Your task to perform on an android device: turn off picture-in-picture Image 0: 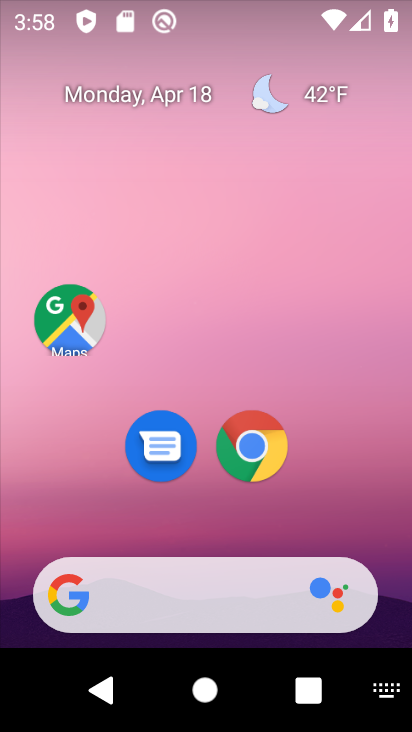
Step 0: click (256, 437)
Your task to perform on an android device: turn off picture-in-picture Image 1: 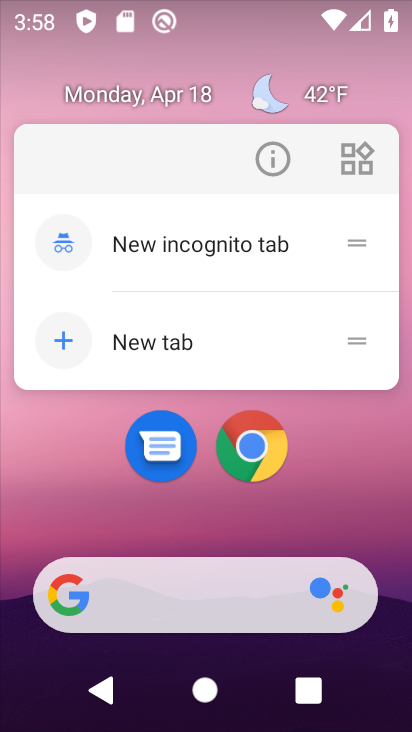
Step 1: click (268, 154)
Your task to perform on an android device: turn off picture-in-picture Image 2: 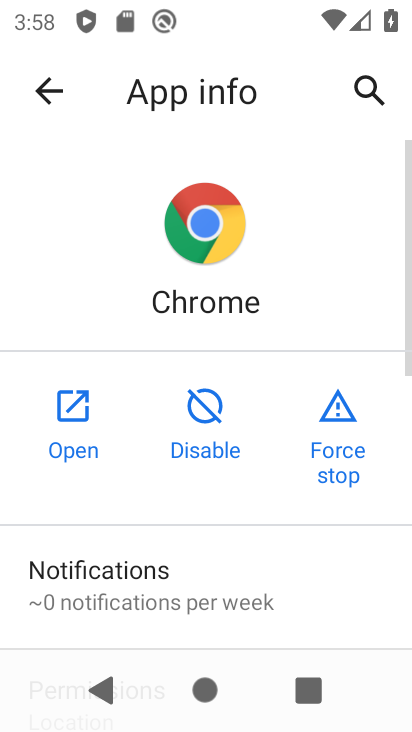
Step 2: drag from (232, 601) to (261, 92)
Your task to perform on an android device: turn off picture-in-picture Image 3: 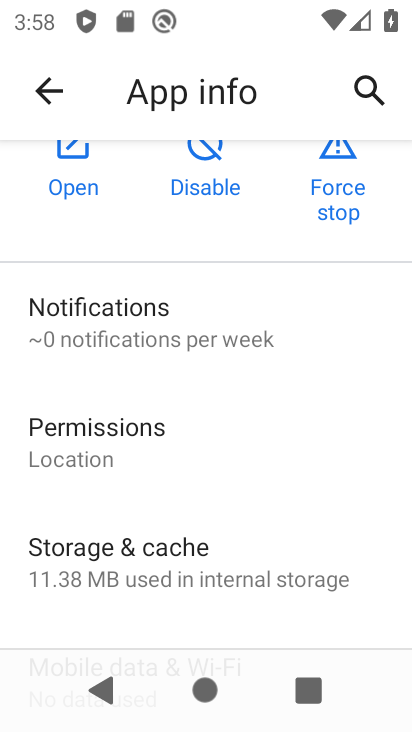
Step 3: drag from (267, 478) to (308, 87)
Your task to perform on an android device: turn off picture-in-picture Image 4: 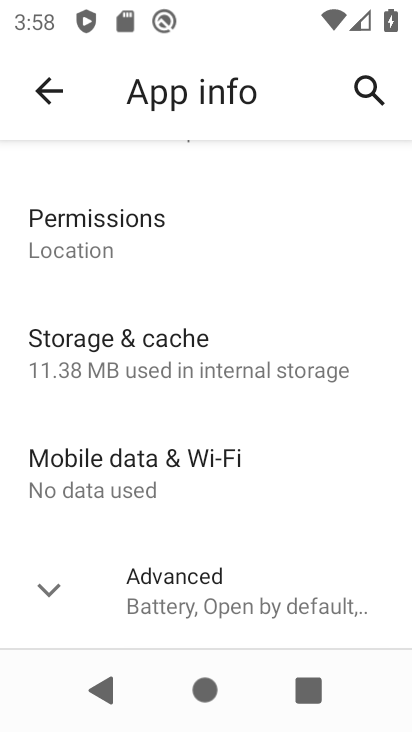
Step 4: click (187, 585)
Your task to perform on an android device: turn off picture-in-picture Image 5: 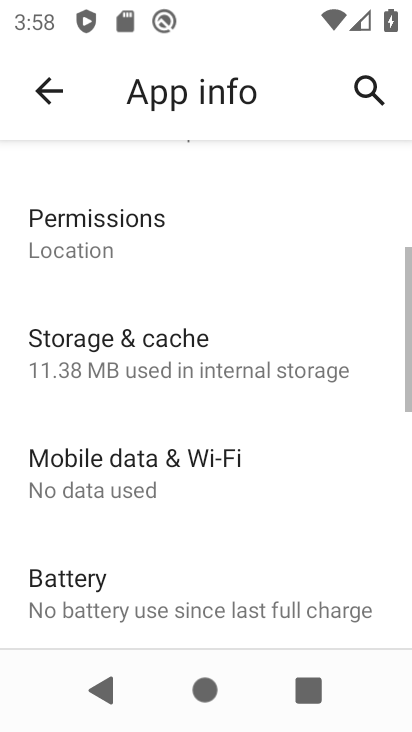
Step 5: drag from (217, 555) to (268, 132)
Your task to perform on an android device: turn off picture-in-picture Image 6: 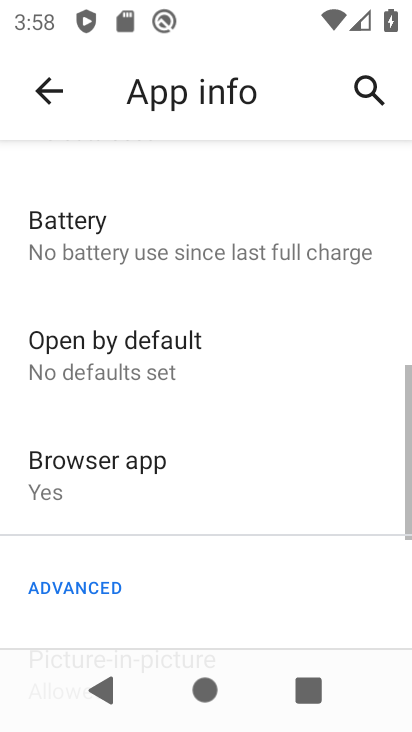
Step 6: drag from (191, 527) to (272, 214)
Your task to perform on an android device: turn off picture-in-picture Image 7: 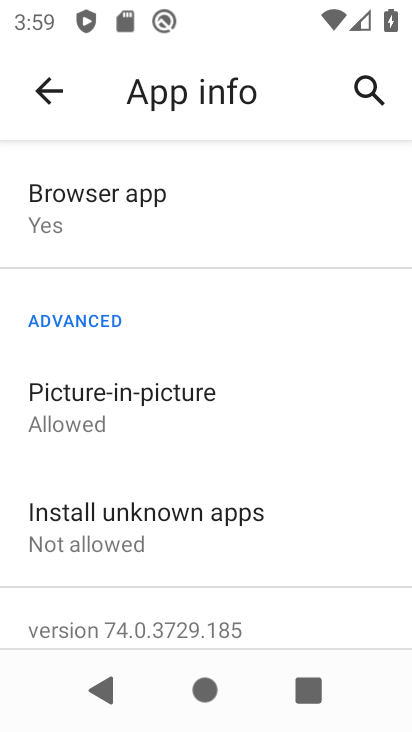
Step 7: click (133, 426)
Your task to perform on an android device: turn off picture-in-picture Image 8: 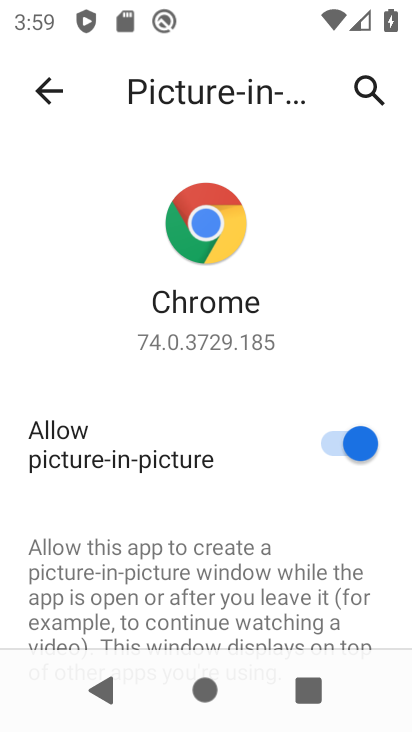
Step 8: drag from (300, 585) to (238, 198)
Your task to perform on an android device: turn off picture-in-picture Image 9: 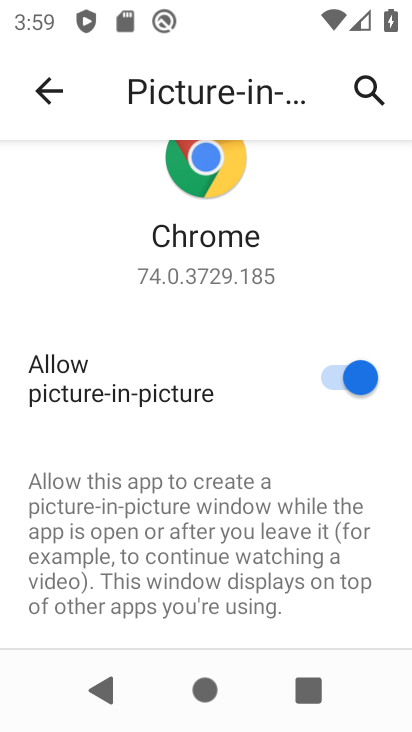
Step 9: click (313, 382)
Your task to perform on an android device: turn off picture-in-picture Image 10: 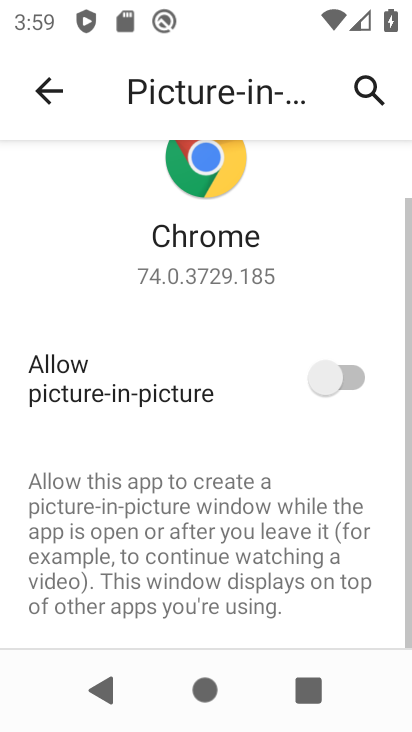
Step 10: task complete